Your task to perform on an android device: open chrome privacy settings Image 0: 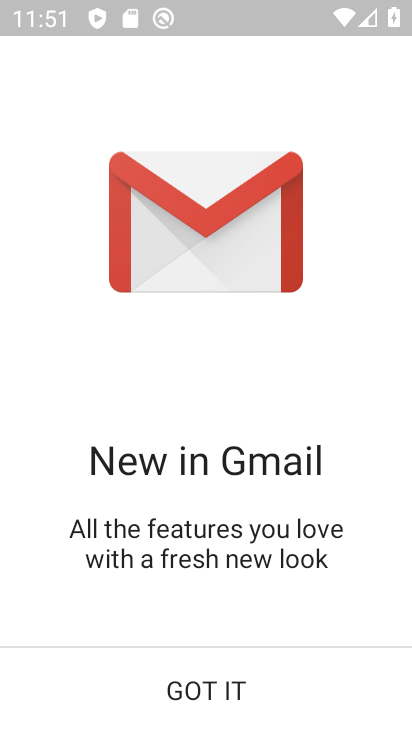
Step 0: press home button
Your task to perform on an android device: open chrome privacy settings Image 1: 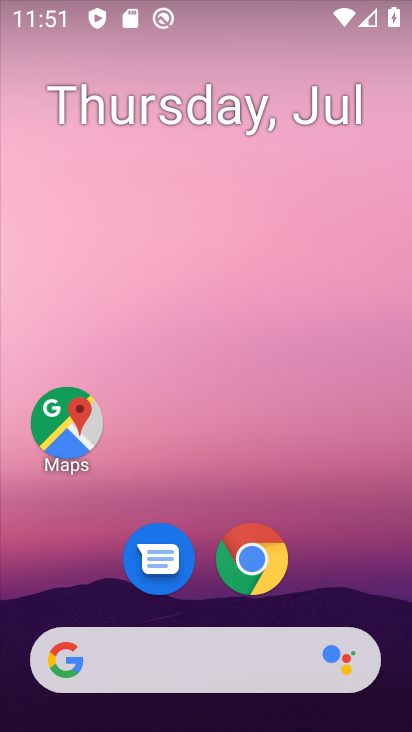
Step 1: drag from (355, 585) to (375, 157)
Your task to perform on an android device: open chrome privacy settings Image 2: 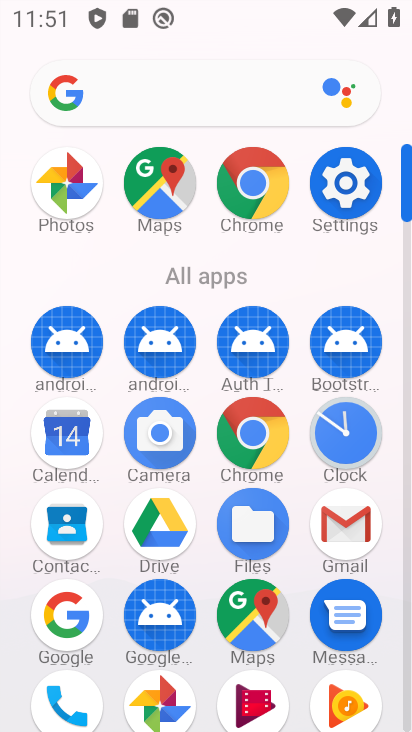
Step 2: click (256, 202)
Your task to perform on an android device: open chrome privacy settings Image 3: 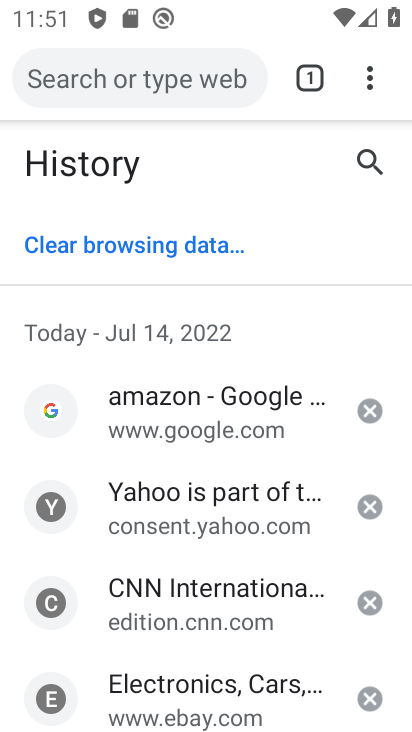
Step 3: click (369, 85)
Your task to perform on an android device: open chrome privacy settings Image 4: 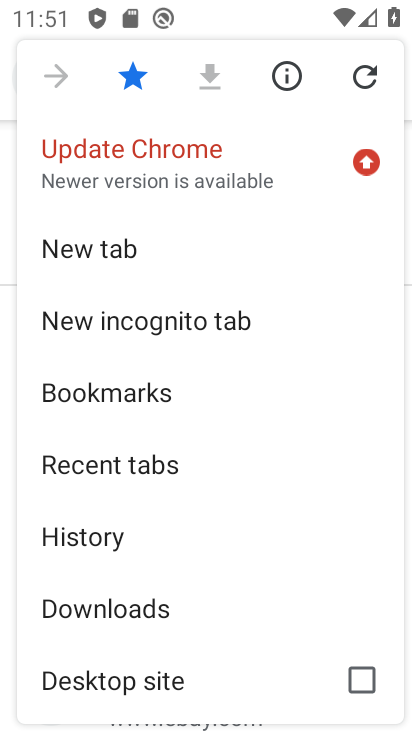
Step 4: drag from (292, 513) to (291, 429)
Your task to perform on an android device: open chrome privacy settings Image 5: 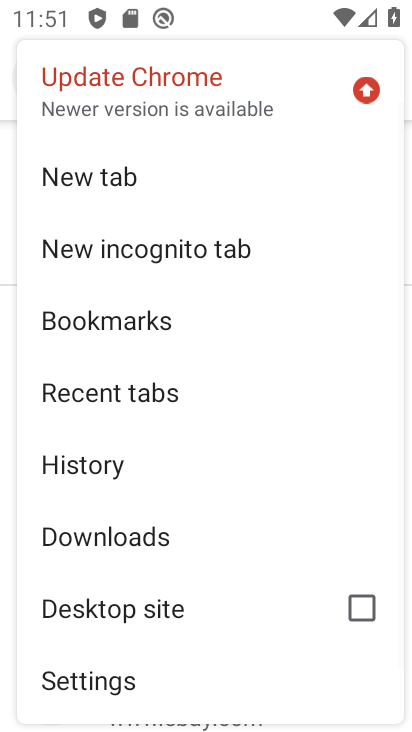
Step 5: drag from (274, 564) to (282, 452)
Your task to perform on an android device: open chrome privacy settings Image 6: 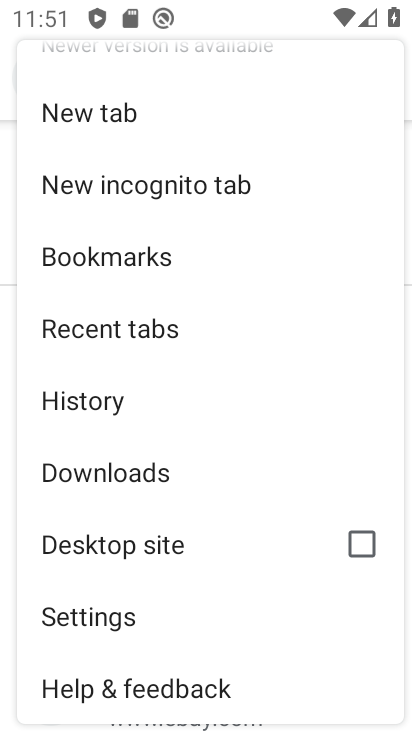
Step 6: click (180, 617)
Your task to perform on an android device: open chrome privacy settings Image 7: 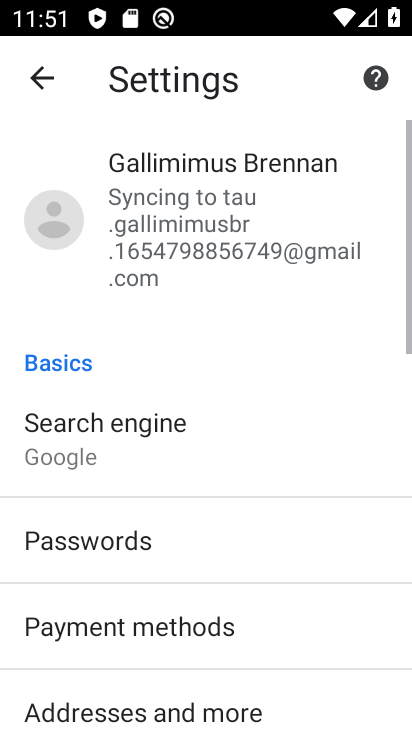
Step 7: drag from (298, 517) to (298, 446)
Your task to perform on an android device: open chrome privacy settings Image 8: 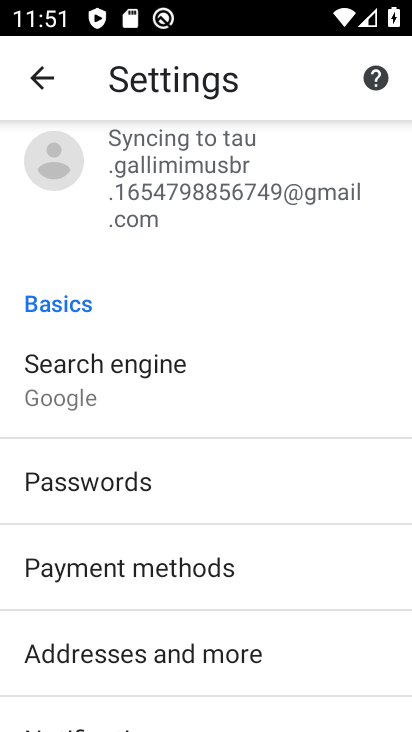
Step 8: drag from (316, 562) to (316, 482)
Your task to perform on an android device: open chrome privacy settings Image 9: 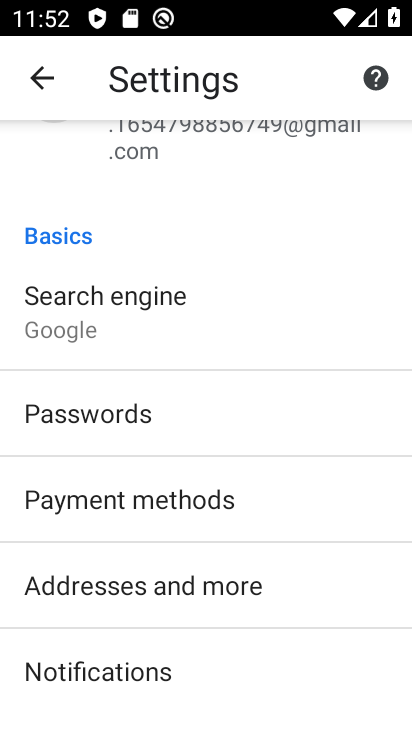
Step 9: drag from (321, 577) to (320, 489)
Your task to perform on an android device: open chrome privacy settings Image 10: 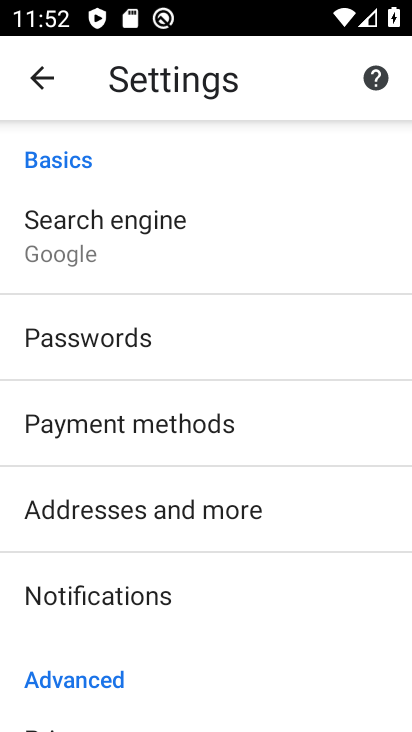
Step 10: drag from (323, 603) to (323, 527)
Your task to perform on an android device: open chrome privacy settings Image 11: 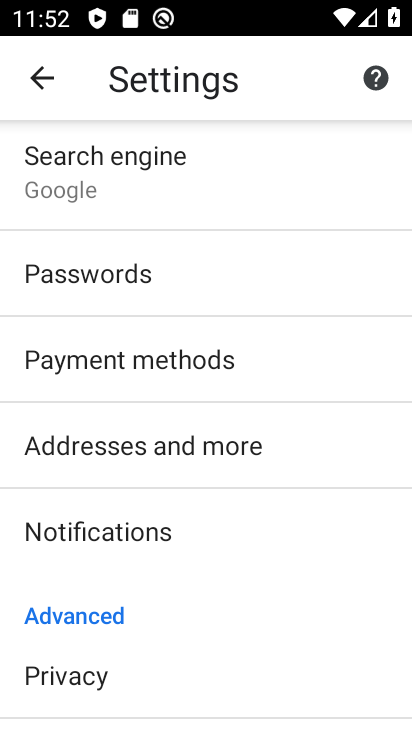
Step 11: drag from (333, 616) to (337, 523)
Your task to perform on an android device: open chrome privacy settings Image 12: 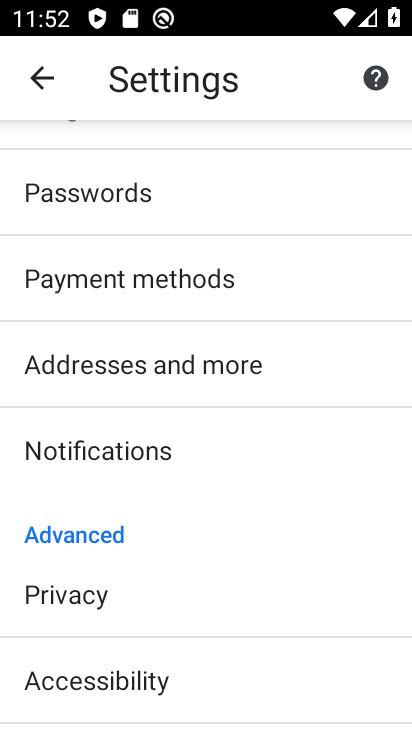
Step 12: drag from (325, 636) to (325, 536)
Your task to perform on an android device: open chrome privacy settings Image 13: 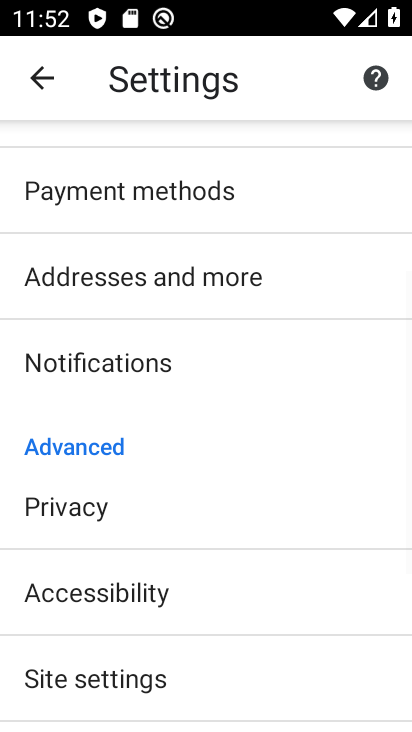
Step 13: drag from (317, 634) to (322, 538)
Your task to perform on an android device: open chrome privacy settings Image 14: 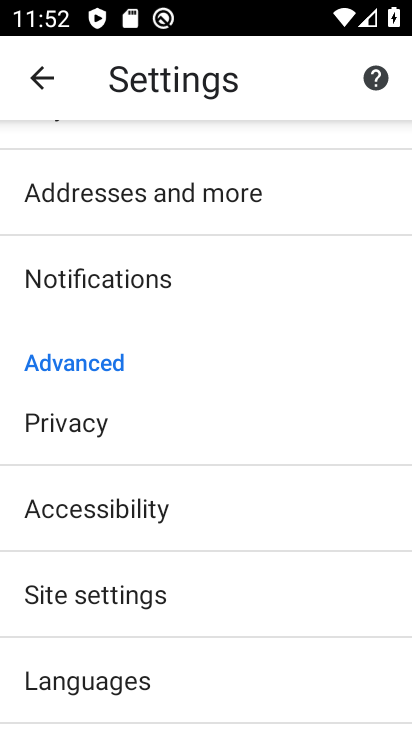
Step 14: drag from (320, 603) to (314, 469)
Your task to perform on an android device: open chrome privacy settings Image 15: 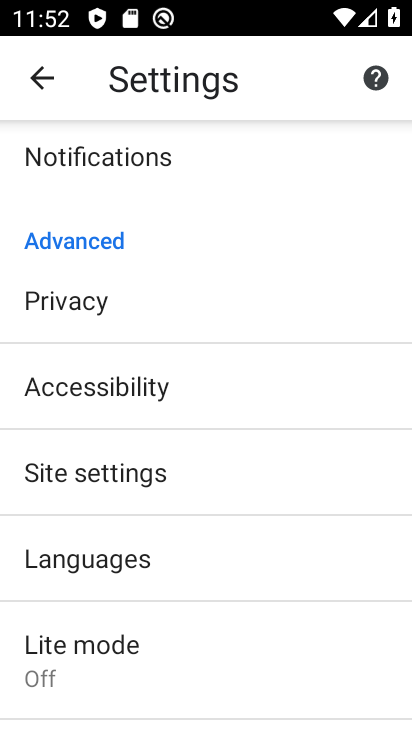
Step 15: drag from (321, 526) to (321, 455)
Your task to perform on an android device: open chrome privacy settings Image 16: 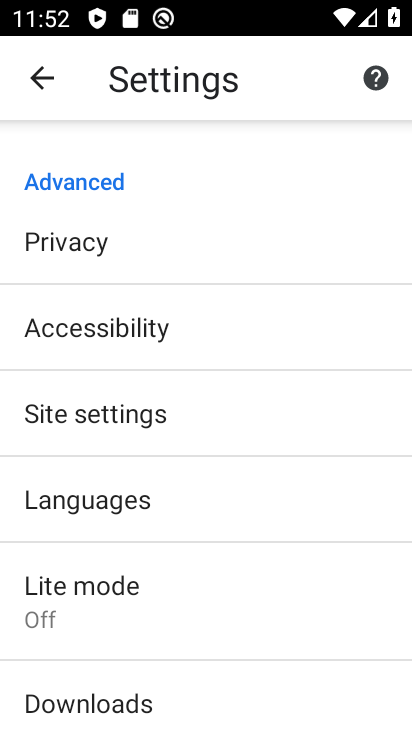
Step 16: click (281, 249)
Your task to perform on an android device: open chrome privacy settings Image 17: 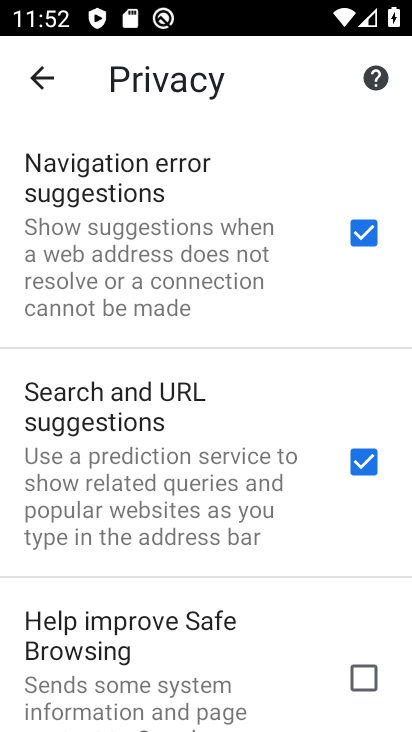
Step 17: task complete